Your task to perform on an android device: Show me productivity apps on the Play Store Image 0: 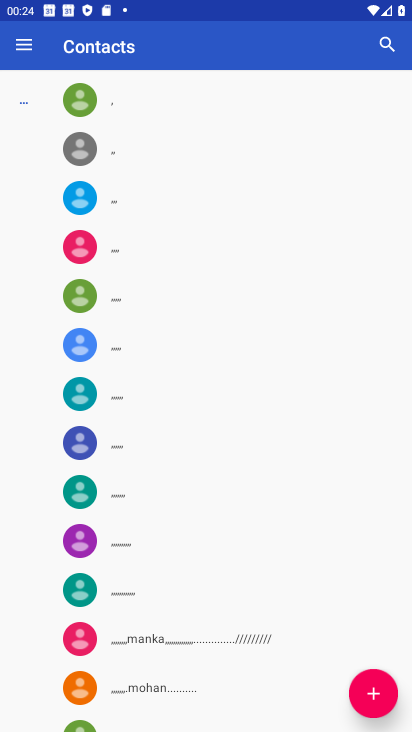
Step 0: press home button
Your task to perform on an android device: Show me productivity apps on the Play Store Image 1: 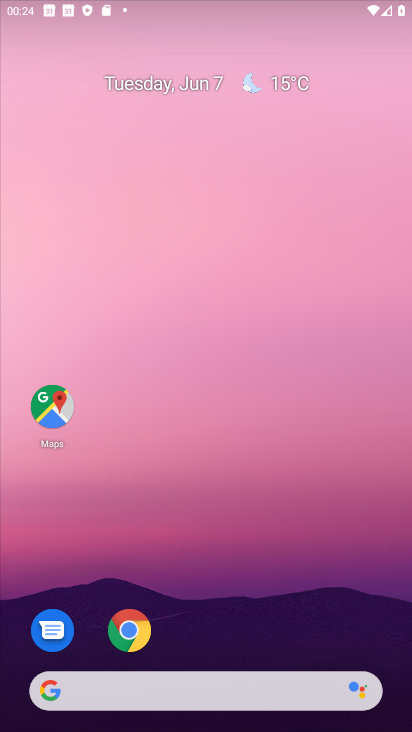
Step 1: drag from (335, 606) to (211, 89)
Your task to perform on an android device: Show me productivity apps on the Play Store Image 2: 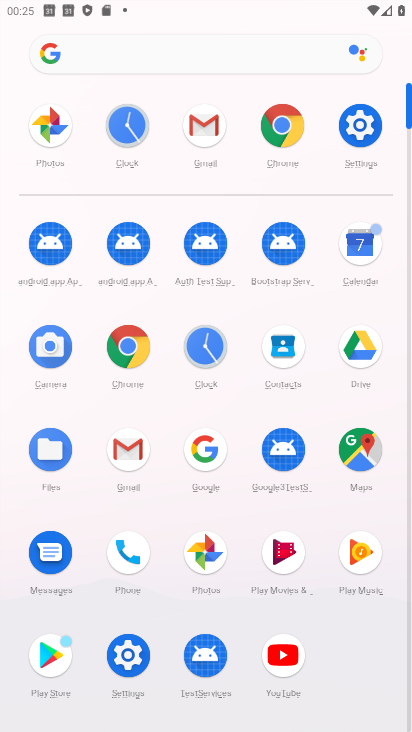
Step 2: click (357, 133)
Your task to perform on an android device: Show me productivity apps on the Play Store Image 3: 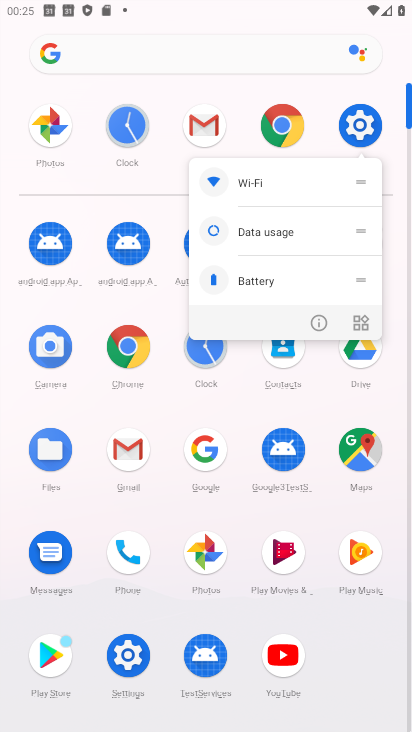
Step 3: drag from (327, 581) to (328, 666)
Your task to perform on an android device: Show me productivity apps on the Play Store Image 4: 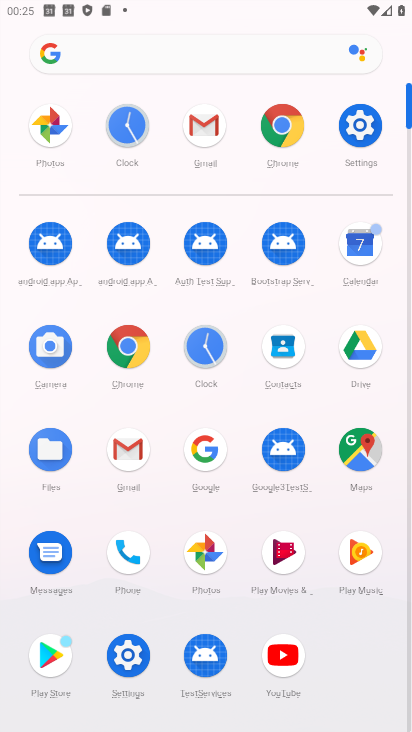
Step 4: drag from (28, 545) to (339, 537)
Your task to perform on an android device: Show me productivity apps on the Play Store Image 5: 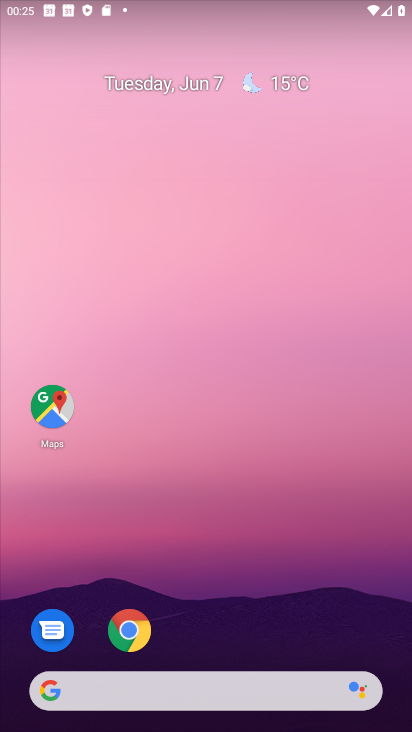
Step 5: drag from (67, 592) to (397, 593)
Your task to perform on an android device: Show me productivity apps on the Play Store Image 6: 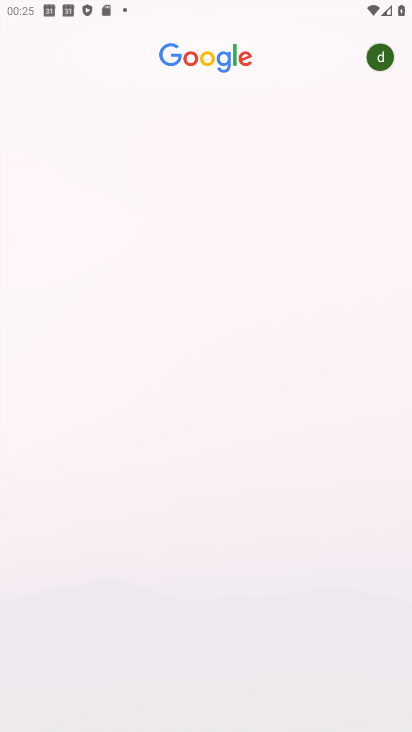
Step 6: press home button
Your task to perform on an android device: Show me productivity apps on the Play Store Image 7: 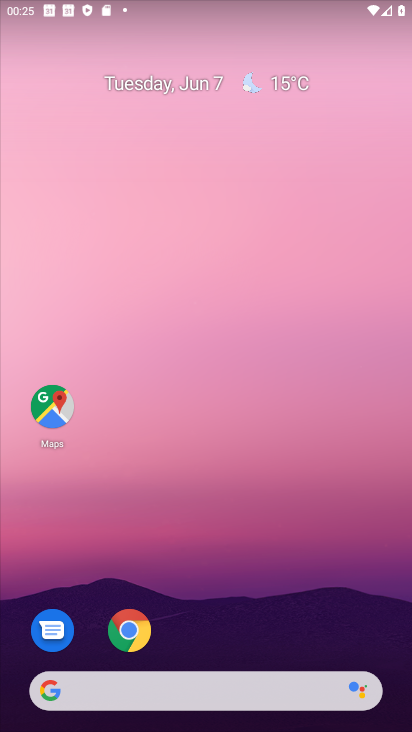
Step 7: drag from (219, 624) to (219, 233)
Your task to perform on an android device: Show me productivity apps on the Play Store Image 8: 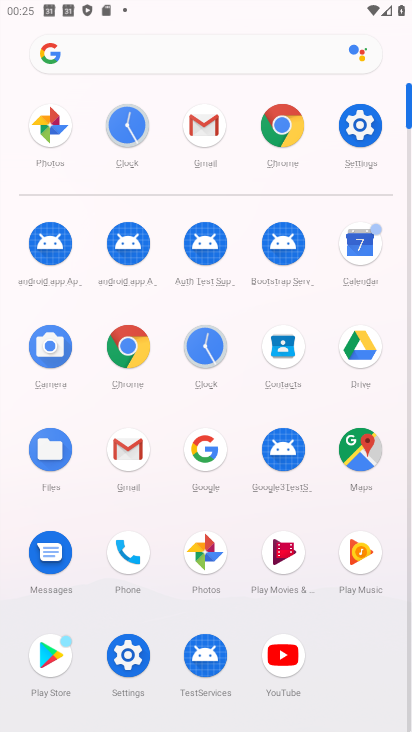
Step 8: click (42, 650)
Your task to perform on an android device: Show me productivity apps on the Play Store Image 9: 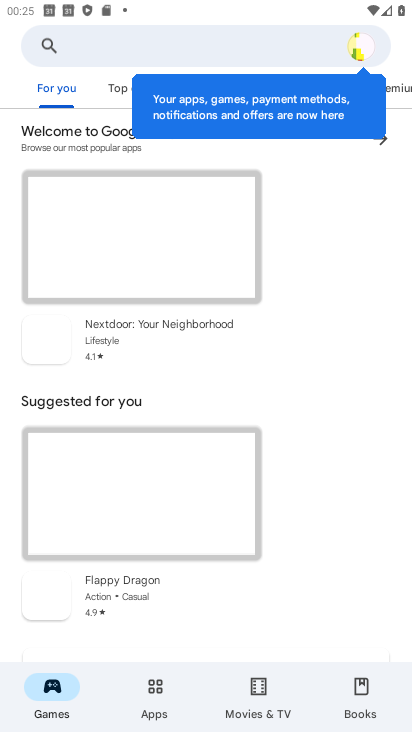
Step 9: click (151, 708)
Your task to perform on an android device: Show me productivity apps on the Play Store Image 10: 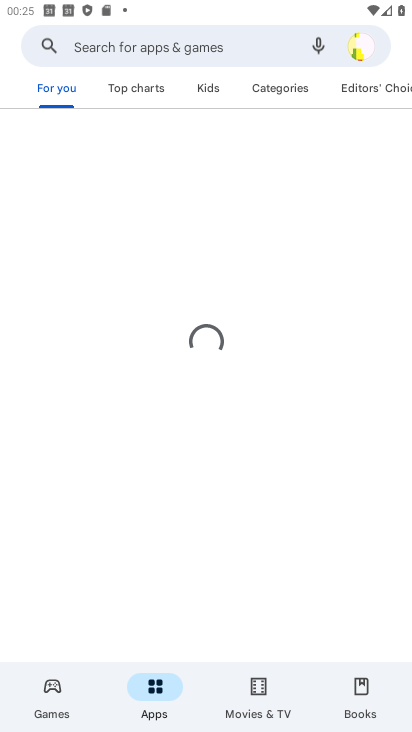
Step 10: click (281, 91)
Your task to perform on an android device: Show me productivity apps on the Play Store Image 11: 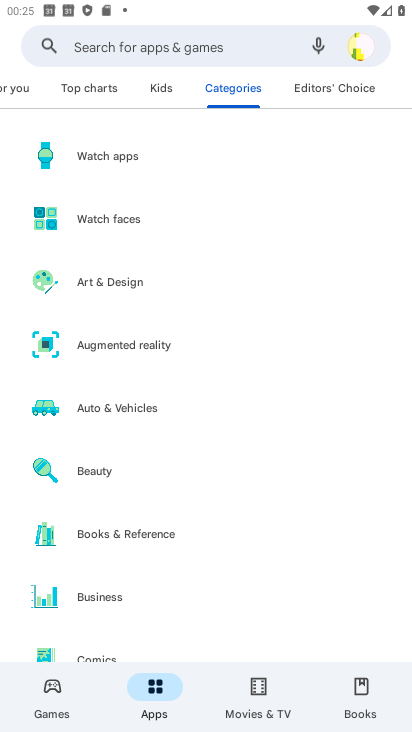
Step 11: drag from (154, 652) to (189, 252)
Your task to perform on an android device: Show me productivity apps on the Play Store Image 12: 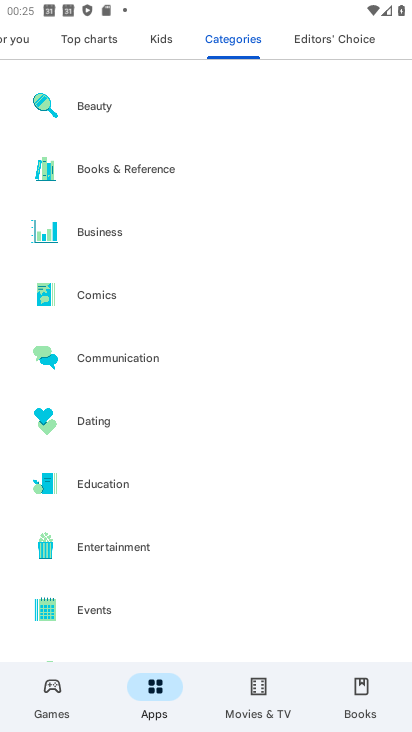
Step 12: drag from (161, 611) to (215, 345)
Your task to perform on an android device: Show me productivity apps on the Play Store Image 13: 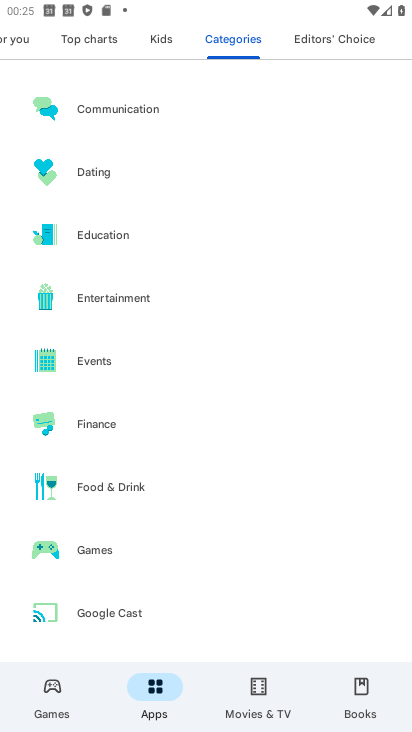
Step 13: drag from (191, 576) to (193, 318)
Your task to perform on an android device: Show me productivity apps on the Play Store Image 14: 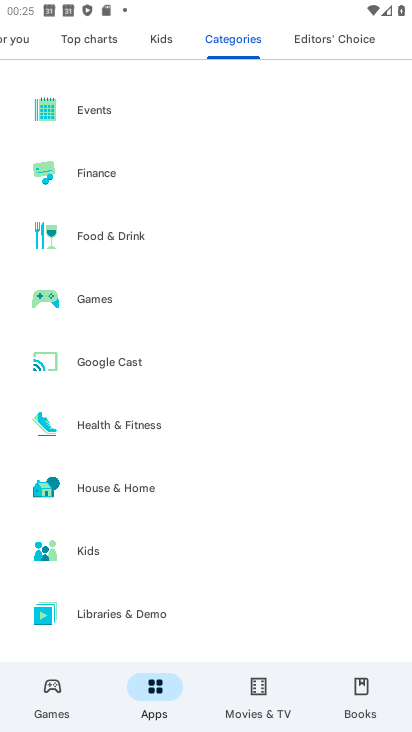
Step 14: drag from (177, 628) to (200, 328)
Your task to perform on an android device: Show me productivity apps on the Play Store Image 15: 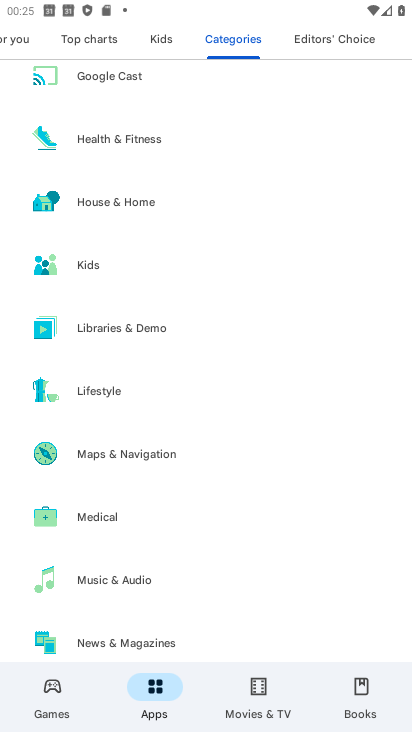
Step 15: drag from (196, 594) to (219, 282)
Your task to perform on an android device: Show me productivity apps on the Play Store Image 16: 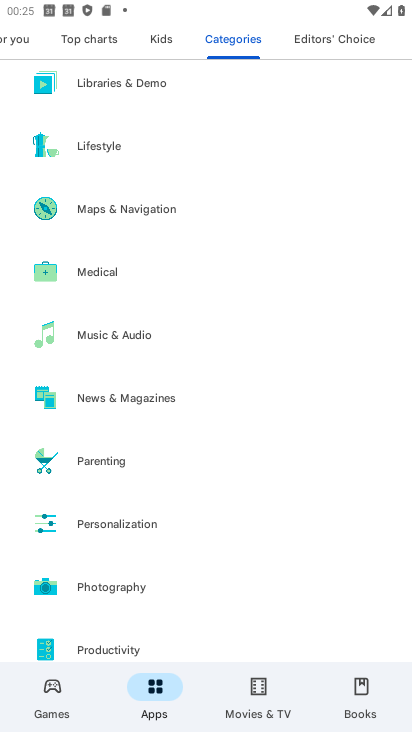
Step 16: drag from (208, 587) to (206, 394)
Your task to perform on an android device: Show me productivity apps on the Play Store Image 17: 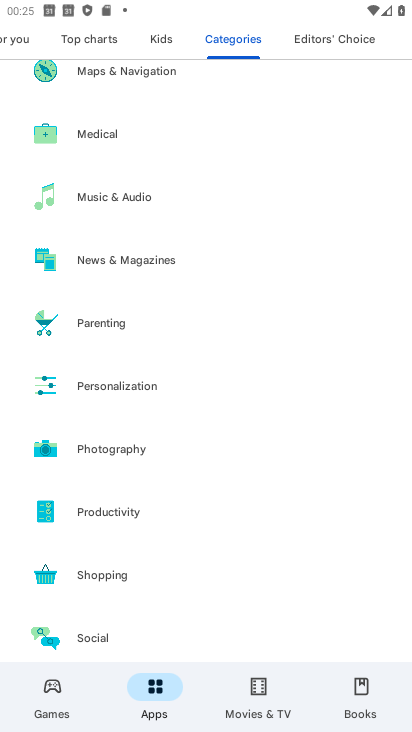
Step 17: click (131, 513)
Your task to perform on an android device: Show me productivity apps on the Play Store Image 18: 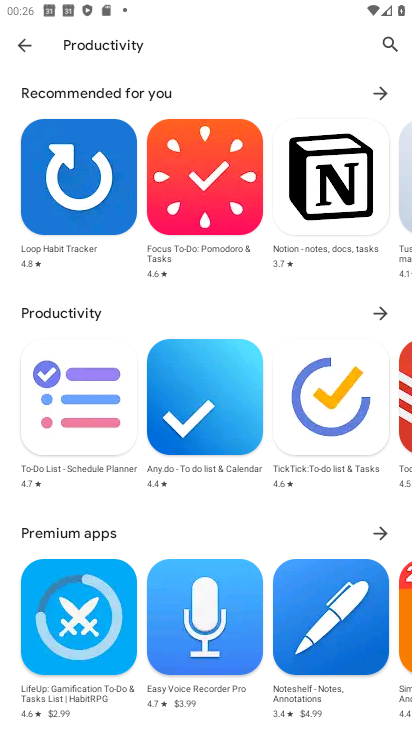
Step 18: task complete